Your task to perform on an android device: What's the news in Vietnam? Image 0: 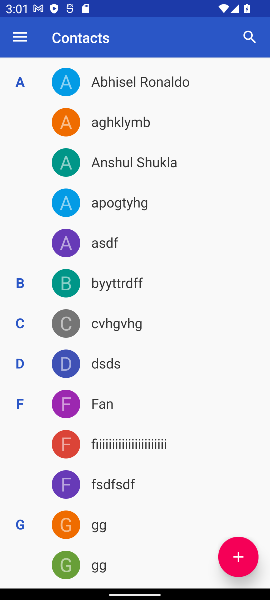
Step 0: press home button
Your task to perform on an android device: What's the news in Vietnam? Image 1: 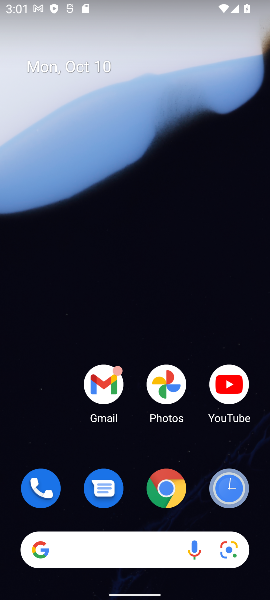
Step 1: click (135, 552)
Your task to perform on an android device: What's the news in Vietnam? Image 2: 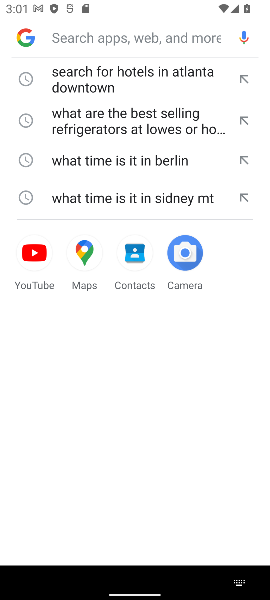
Step 2: click (109, 28)
Your task to perform on an android device: What's the news in Vietnam? Image 3: 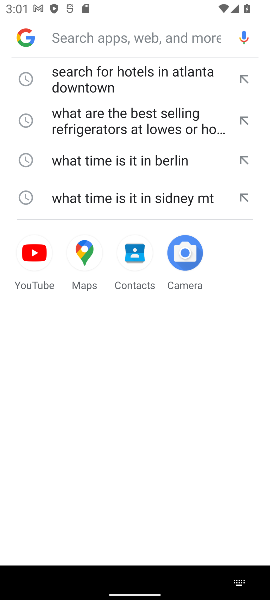
Step 3: type "What's the news in Vietnam"
Your task to perform on an android device: What's the news in Vietnam? Image 4: 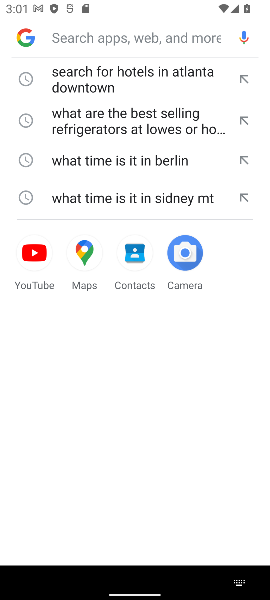
Step 4: click (202, 396)
Your task to perform on an android device: What's the news in Vietnam? Image 5: 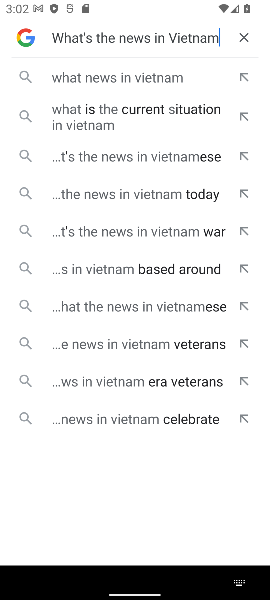
Step 5: click (157, 76)
Your task to perform on an android device: What's the news in Vietnam? Image 6: 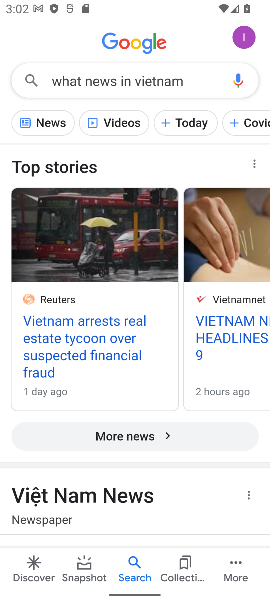
Step 6: task complete